Your task to perform on an android device: Go to Amazon Image 0: 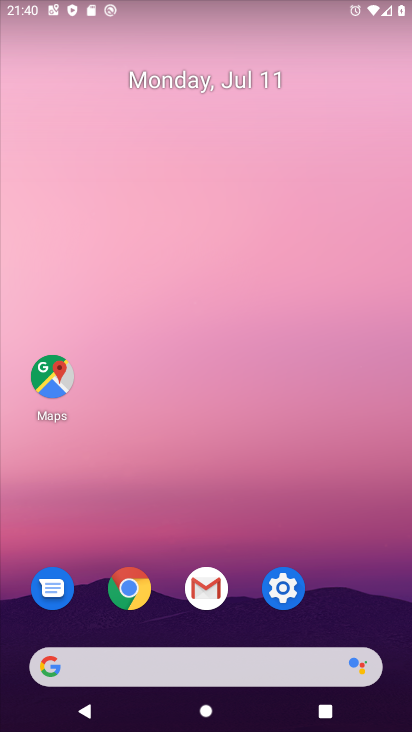
Step 0: click (137, 594)
Your task to perform on an android device: Go to Amazon Image 1: 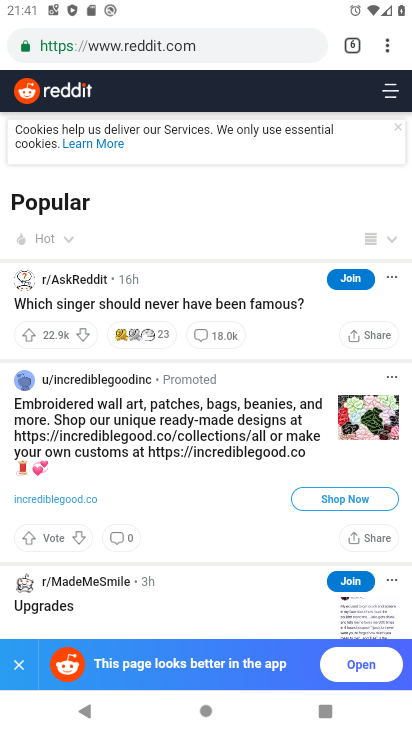
Step 1: click (359, 44)
Your task to perform on an android device: Go to Amazon Image 2: 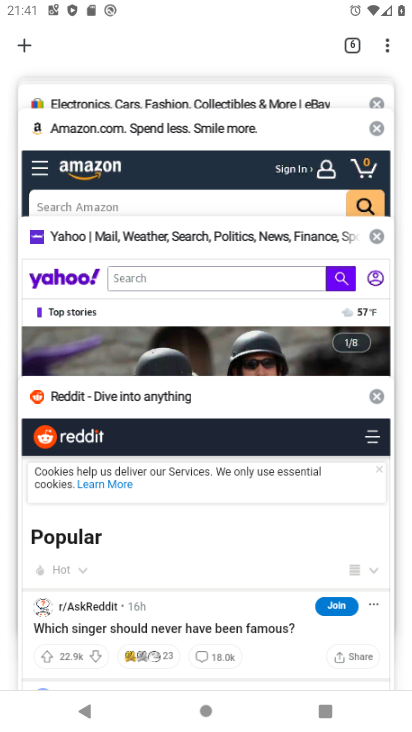
Step 2: click (27, 41)
Your task to perform on an android device: Go to Amazon Image 3: 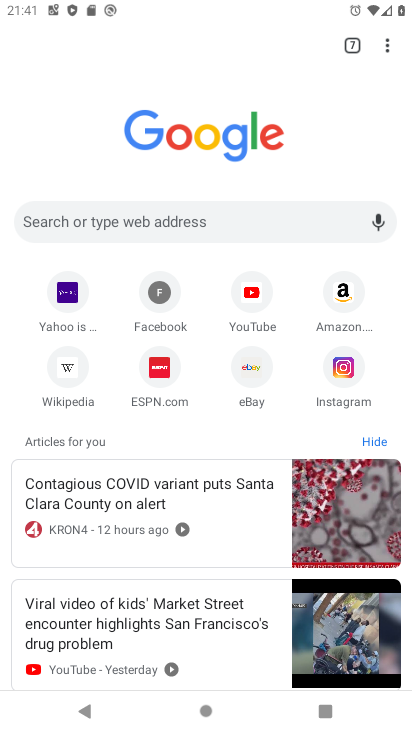
Step 3: click (356, 296)
Your task to perform on an android device: Go to Amazon Image 4: 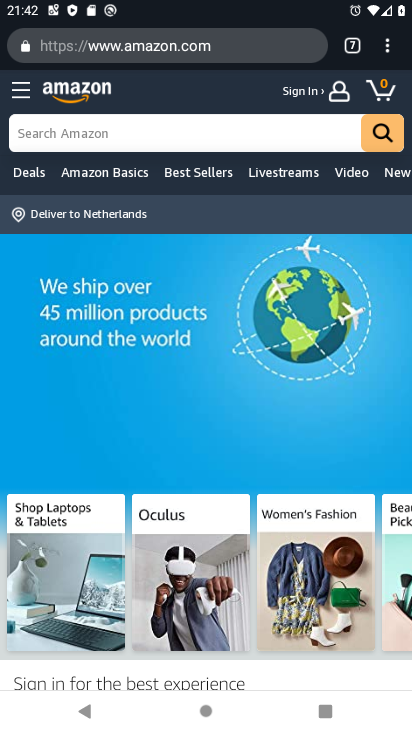
Step 4: task complete